Your task to perform on an android device: Toggle the flashlight Image 0: 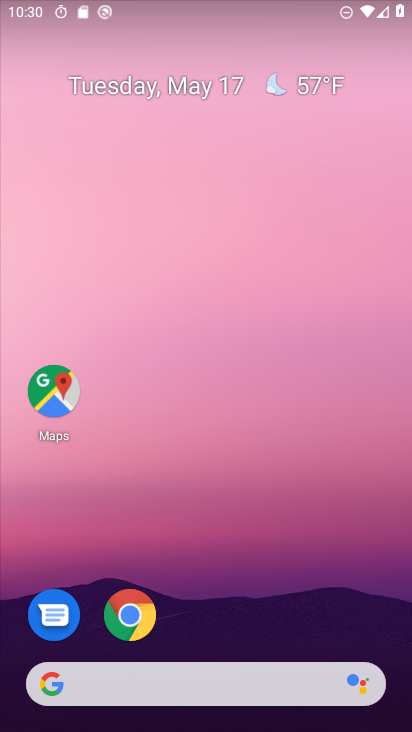
Step 0: drag from (230, 8) to (184, 578)
Your task to perform on an android device: Toggle the flashlight Image 1: 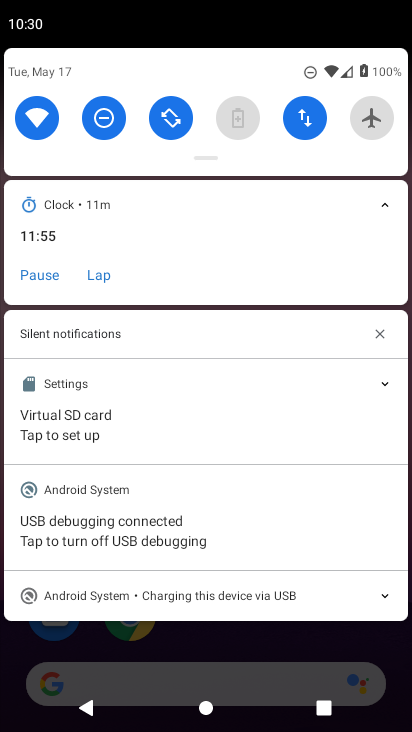
Step 1: task complete